Your task to perform on an android device: change notifications settings Image 0: 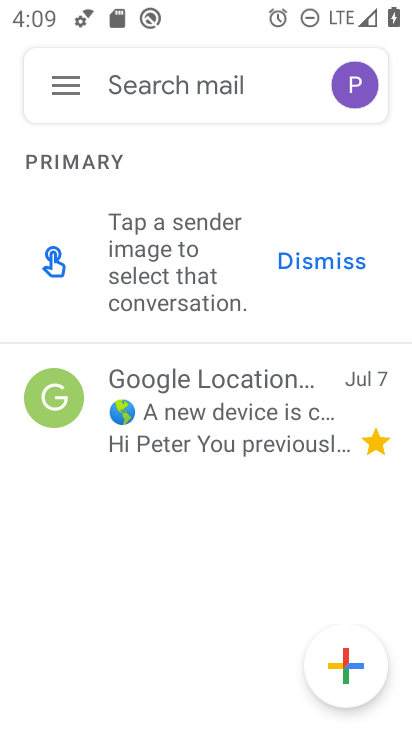
Step 0: press back button
Your task to perform on an android device: change notifications settings Image 1: 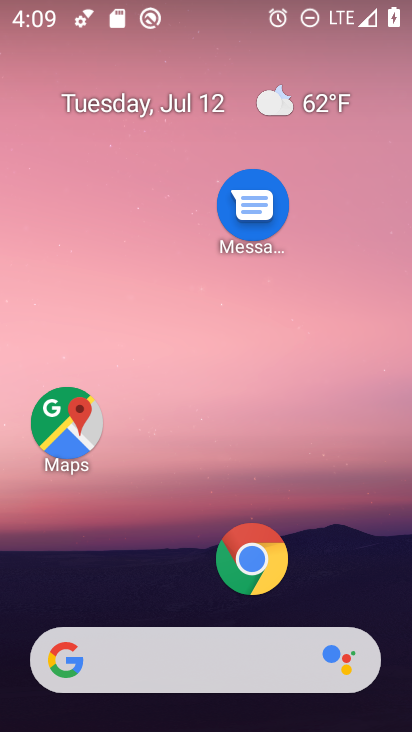
Step 1: drag from (136, 611) to (208, 21)
Your task to perform on an android device: change notifications settings Image 2: 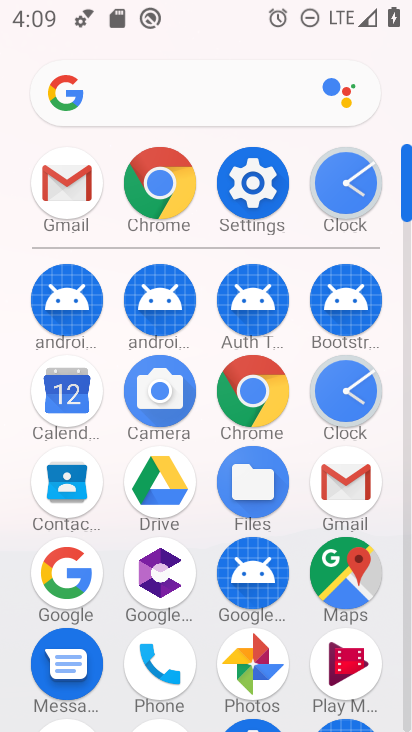
Step 2: click (272, 182)
Your task to perform on an android device: change notifications settings Image 3: 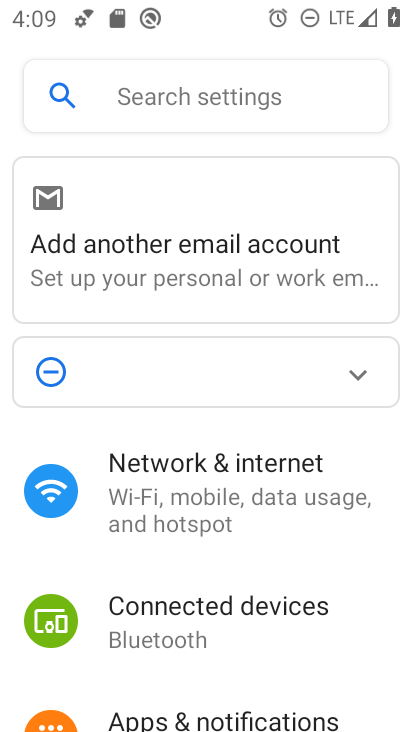
Step 3: click (190, 715)
Your task to perform on an android device: change notifications settings Image 4: 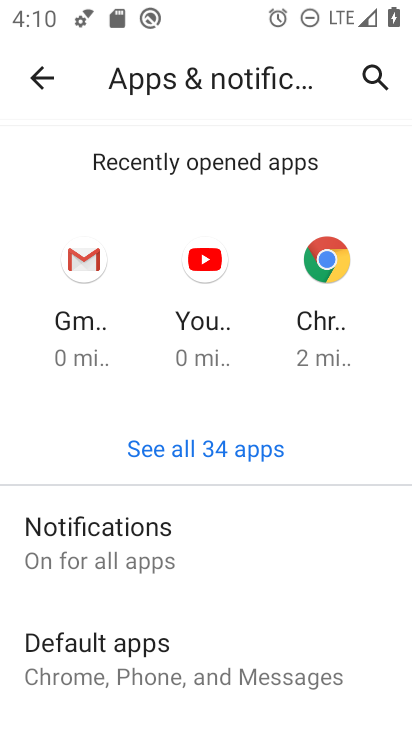
Step 4: click (150, 543)
Your task to perform on an android device: change notifications settings Image 5: 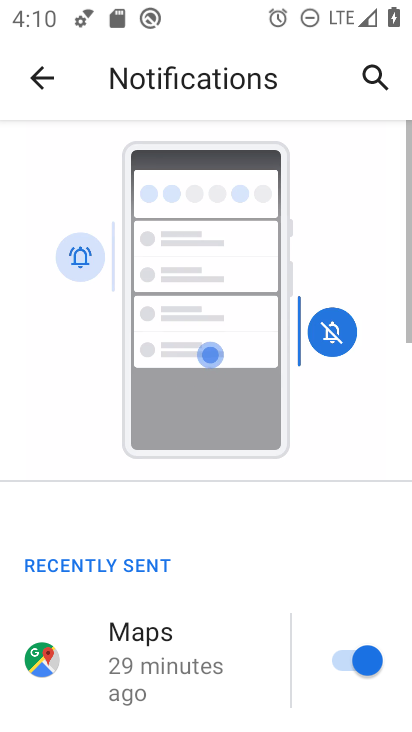
Step 5: drag from (130, 590) to (244, 33)
Your task to perform on an android device: change notifications settings Image 6: 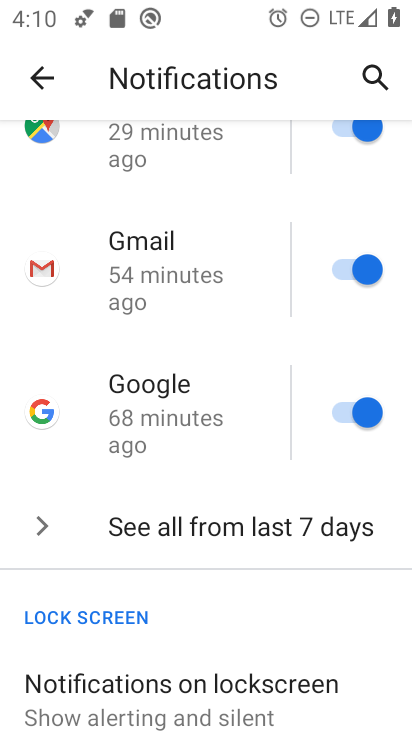
Step 6: drag from (180, 696) to (223, 74)
Your task to perform on an android device: change notifications settings Image 7: 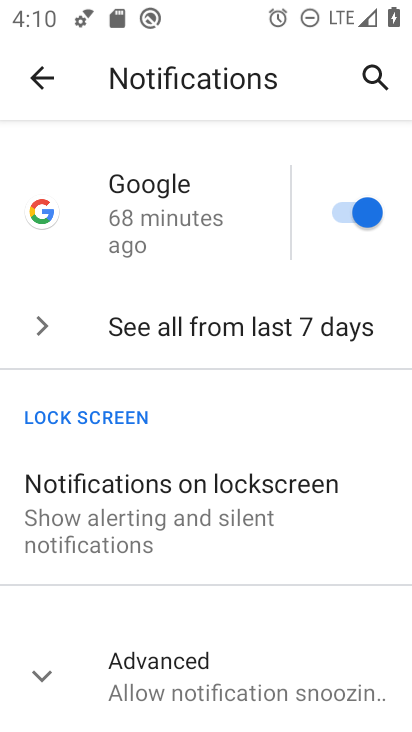
Step 7: click (250, 697)
Your task to perform on an android device: change notifications settings Image 8: 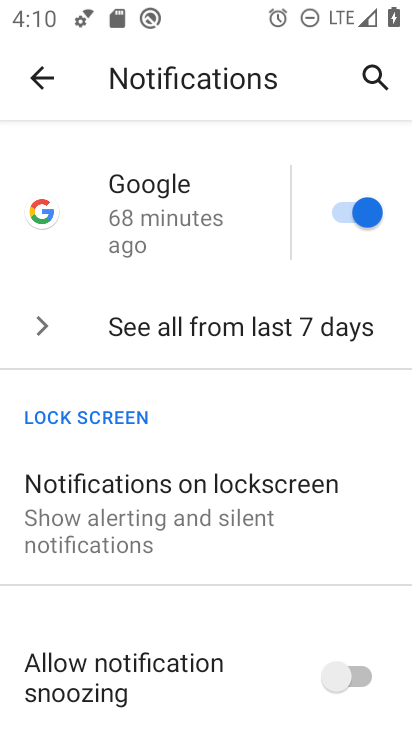
Step 8: click (359, 674)
Your task to perform on an android device: change notifications settings Image 9: 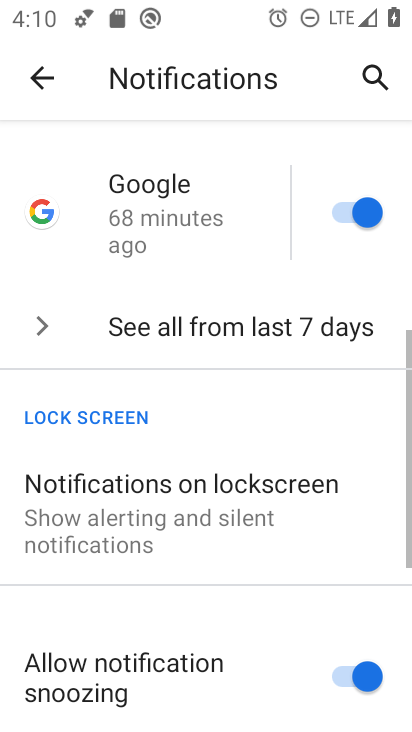
Step 9: task complete